Your task to perform on an android device: change timer sound Image 0: 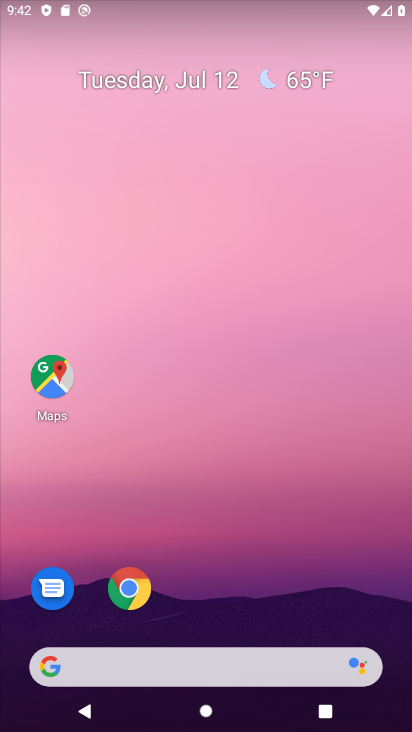
Step 0: drag from (35, 717) to (282, 98)
Your task to perform on an android device: change timer sound Image 1: 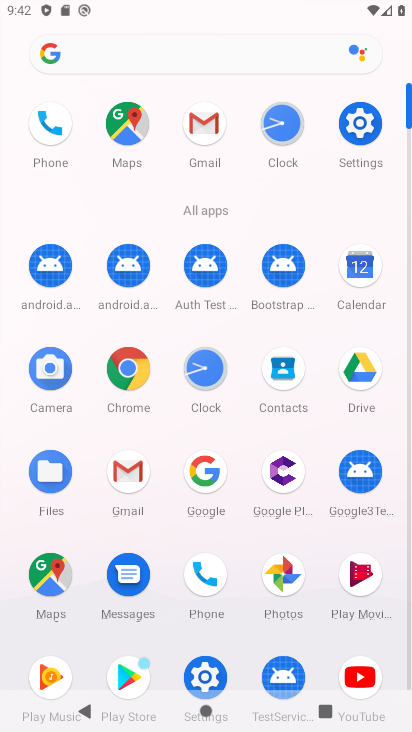
Step 1: click (199, 678)
Your task to perform on an android device: change timer sound Image 2: 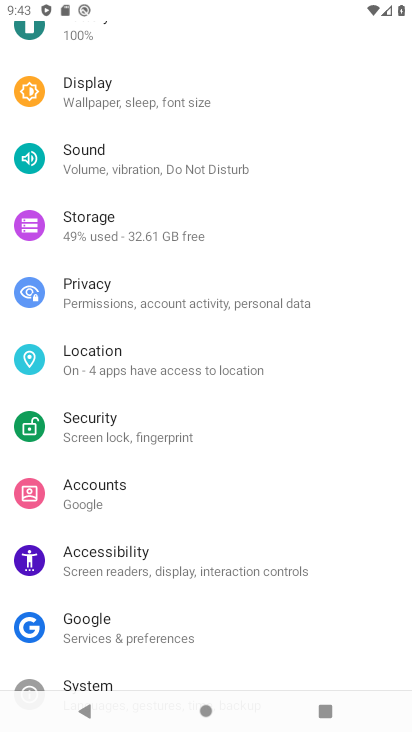
Step 2: click (102, 159)
Your task to perform on an android device: change timer sound Image 3: 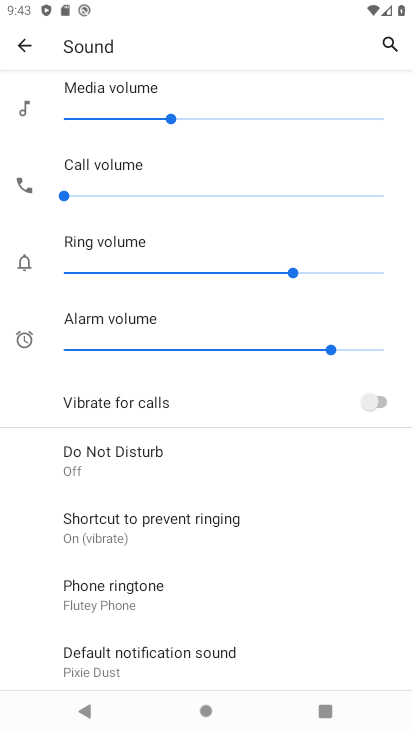
Step 3: task complete